Your task to perform on an android device: Open internet settings Image 0: 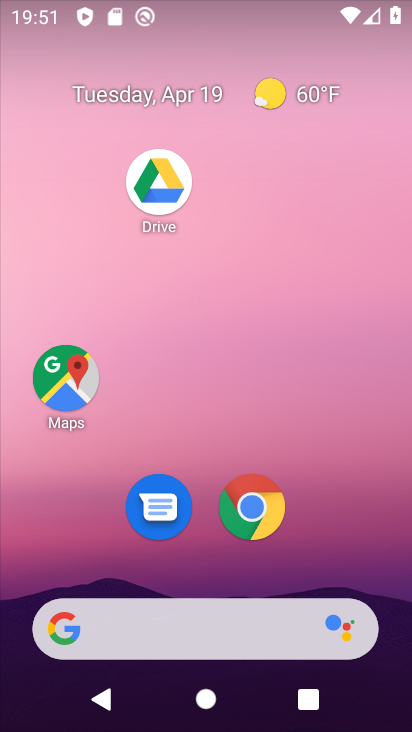
Step 0: drag from (308, 473) to (289, 138)
Your task to perform on an android device: Open internet settings Image 1: 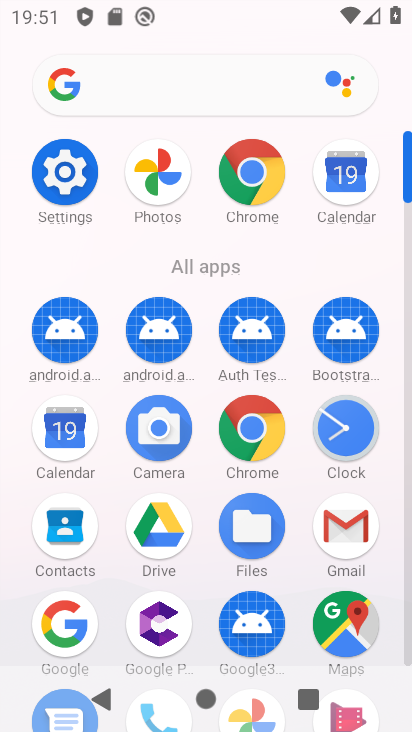
Step 1: click (68, 178)
Your task to perform on an android device: Open internet settings Image 2: 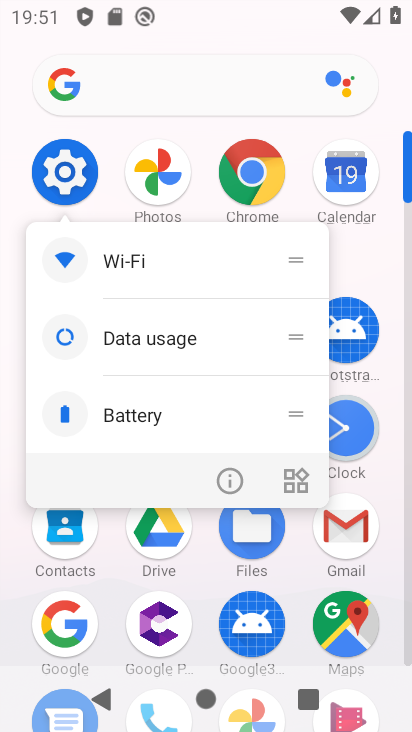
Step 2: click (68, 179)
Your task to perform on an android device: Open internet settings Image 3: 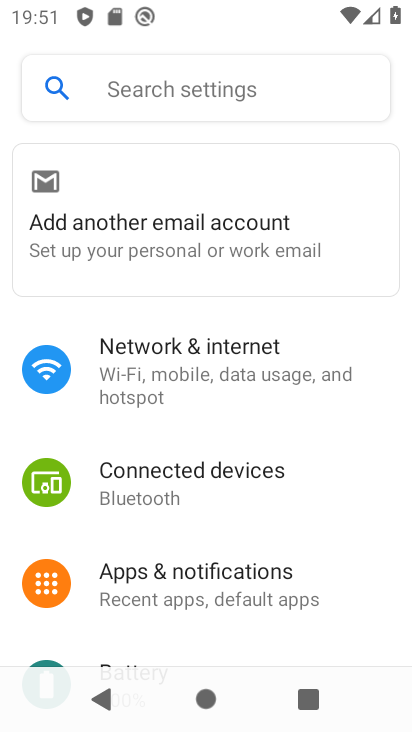
Step 3: click (225, 352)
Your task to perform on an android device: Open internet settings Image 4: 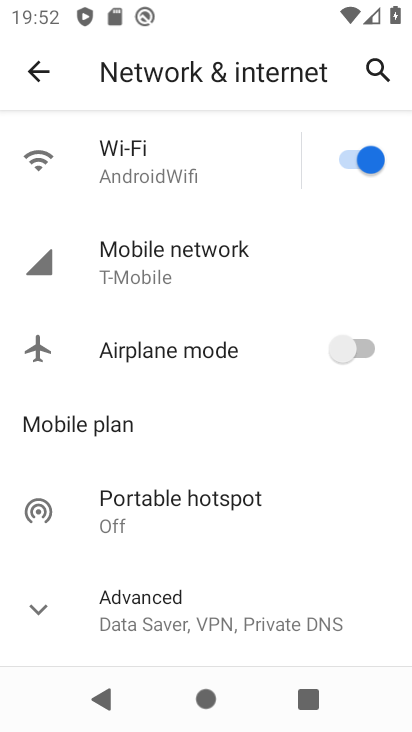
Step 4: task complete